Your task to perform on an android device: Open the map Image 0: 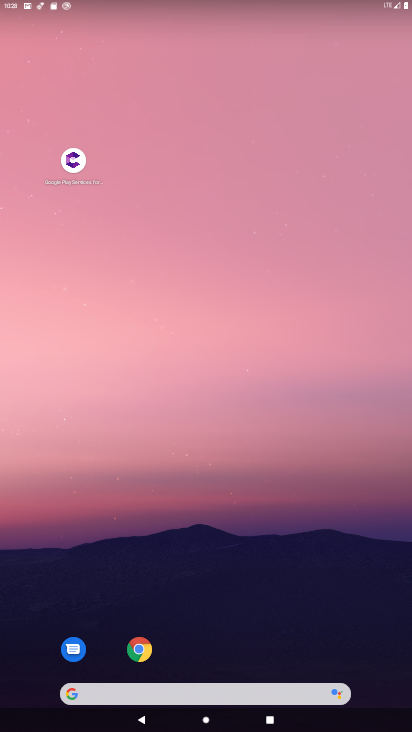
Step 0: drag from (314, 654) to (267, 215)
Your task to perform on an android device: Open the map Image 1: 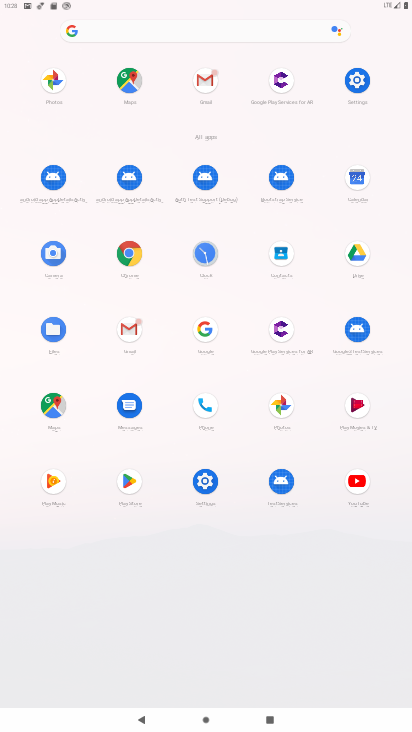
Step 1: click (119, 81)
Your task to perform on an android device: Open the map Image 2: 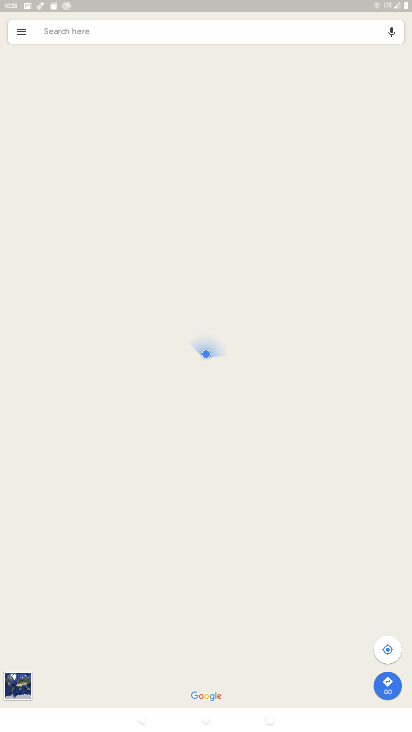
Step 2: task complete